Your task to perform on an android device: change timer sound Image 0: 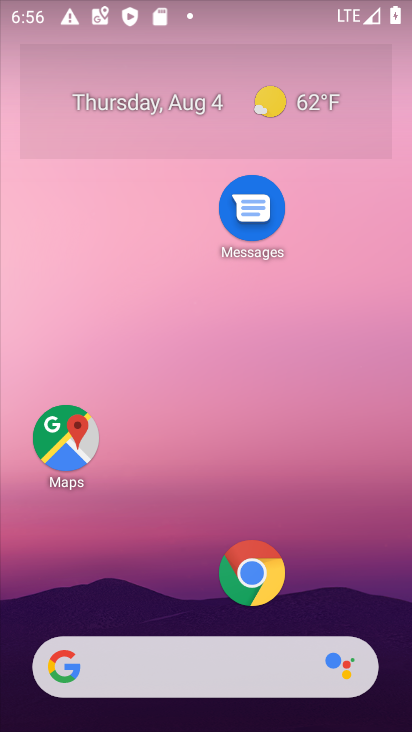
Step 0: press home button
Your task to perform on an android device: change timer sound Image 1: 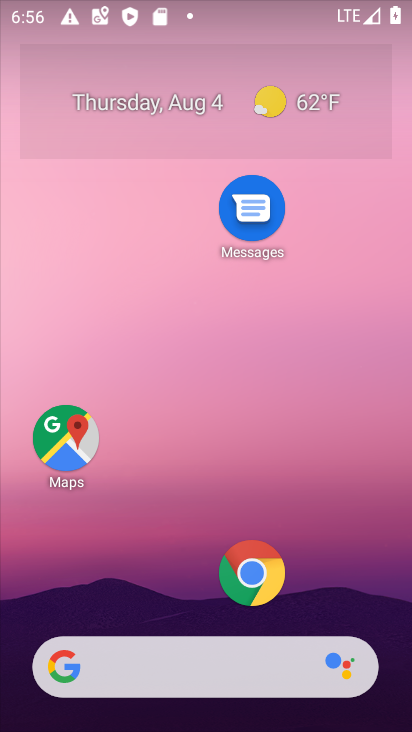
Step 1: drag from (162, 610) to (234, 107)
Your task to perform on an android device: change timer sound Image 2: 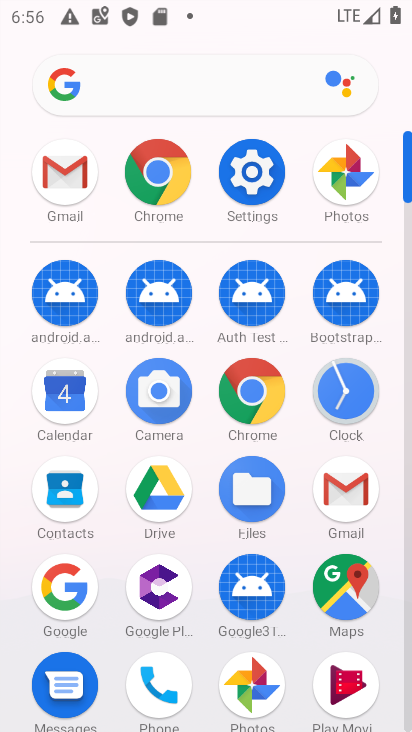
Step 2: click (359, 394)
Your task to perform on an android device: change timer sound Image 3: 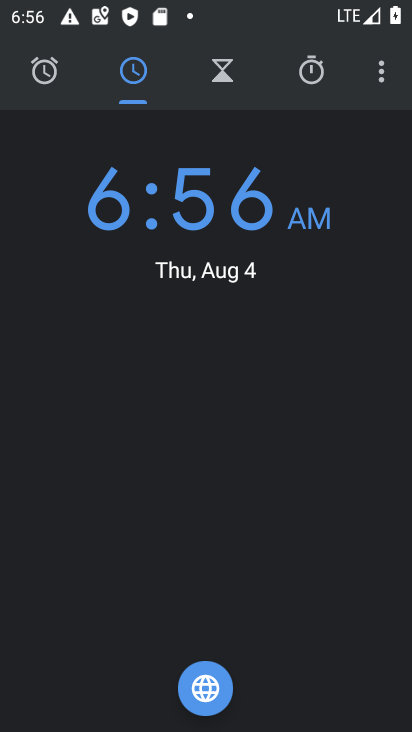
Step 3: click (373, 79)
Your task to perform on an android device: change timer sound Image 4: 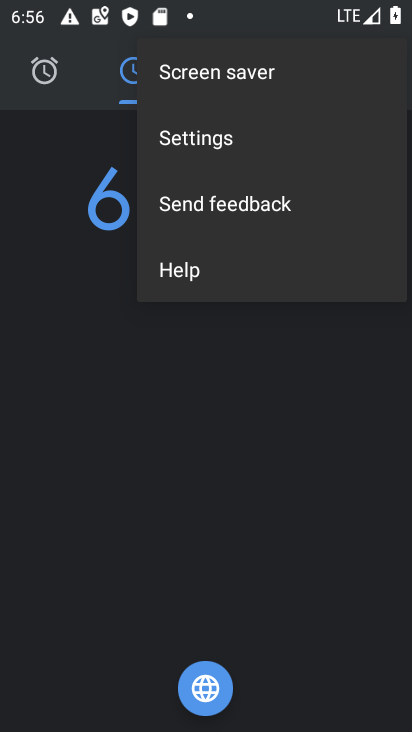
Step 4: click (179, 158)
Your task to perform on an android device: change timer sound Image 5: 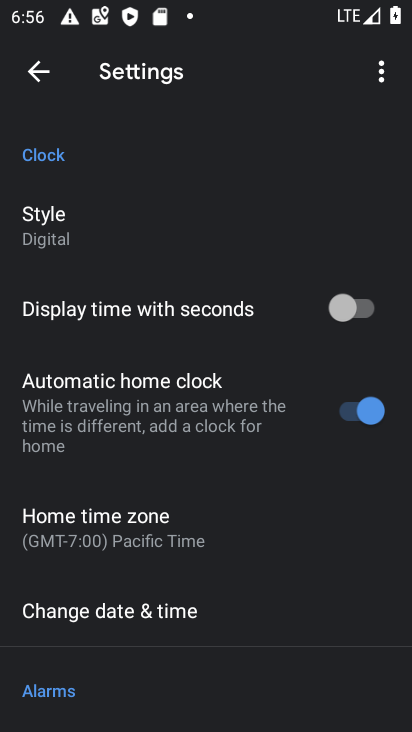
Step 5: drag from (313, 631) to (280, 205)
Your task to perform on an android device: change timer sound Image 6: 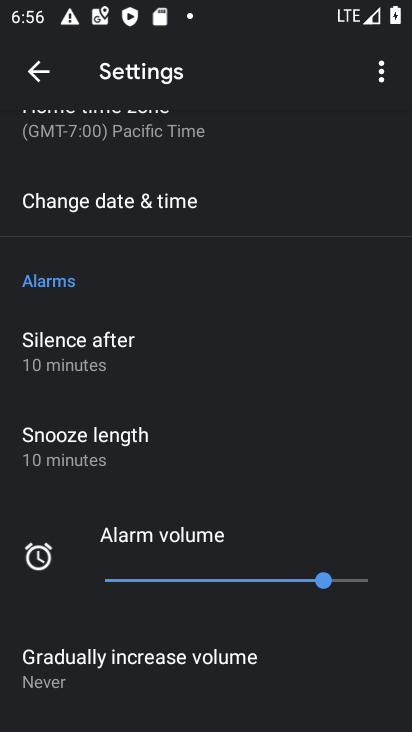
Step 6: drag from (318, 654) to (314, 304)
Your task to perform on an android device: change timer sound Image 7: 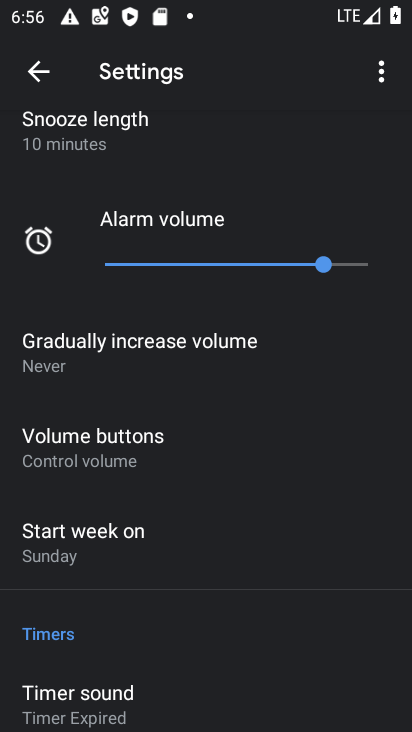
Step 7: drag from (243, 674) to (259, 457)
Your task to perform on an android device: change timer sound Image 8: 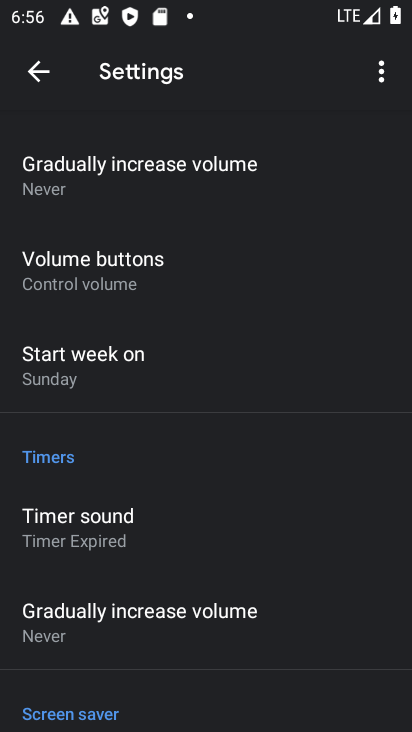
Step 8: click (83, 515)
Your task to perform on an android device: change timer sound Image 9: 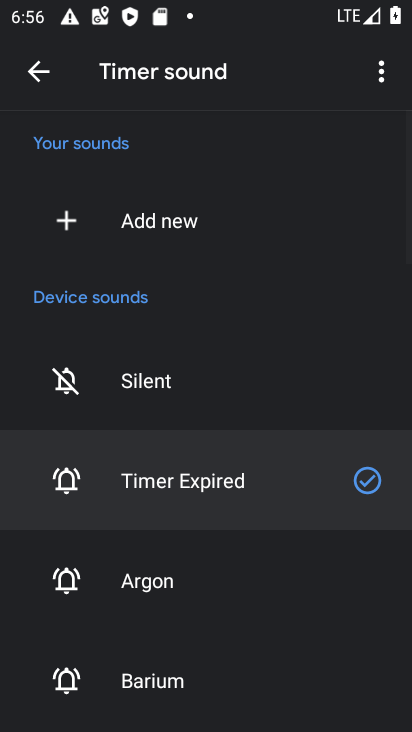
Step 9: click (134, 598)
Your task to perform on an android device: change timer sound Image 10: 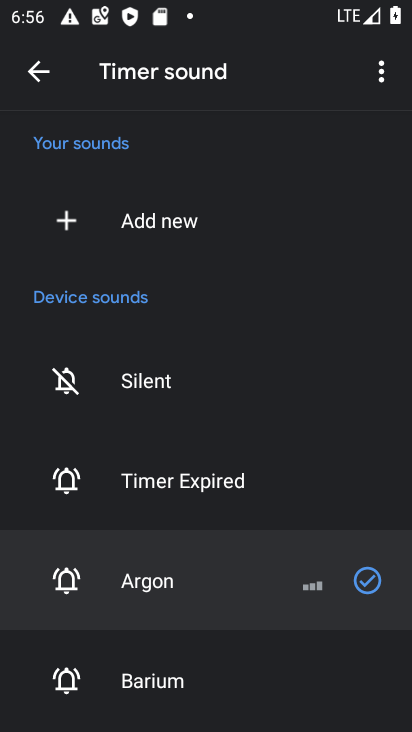
Step 10: task complete